Your task to perform on an android device: open app "YouTube Kids" Image 0: 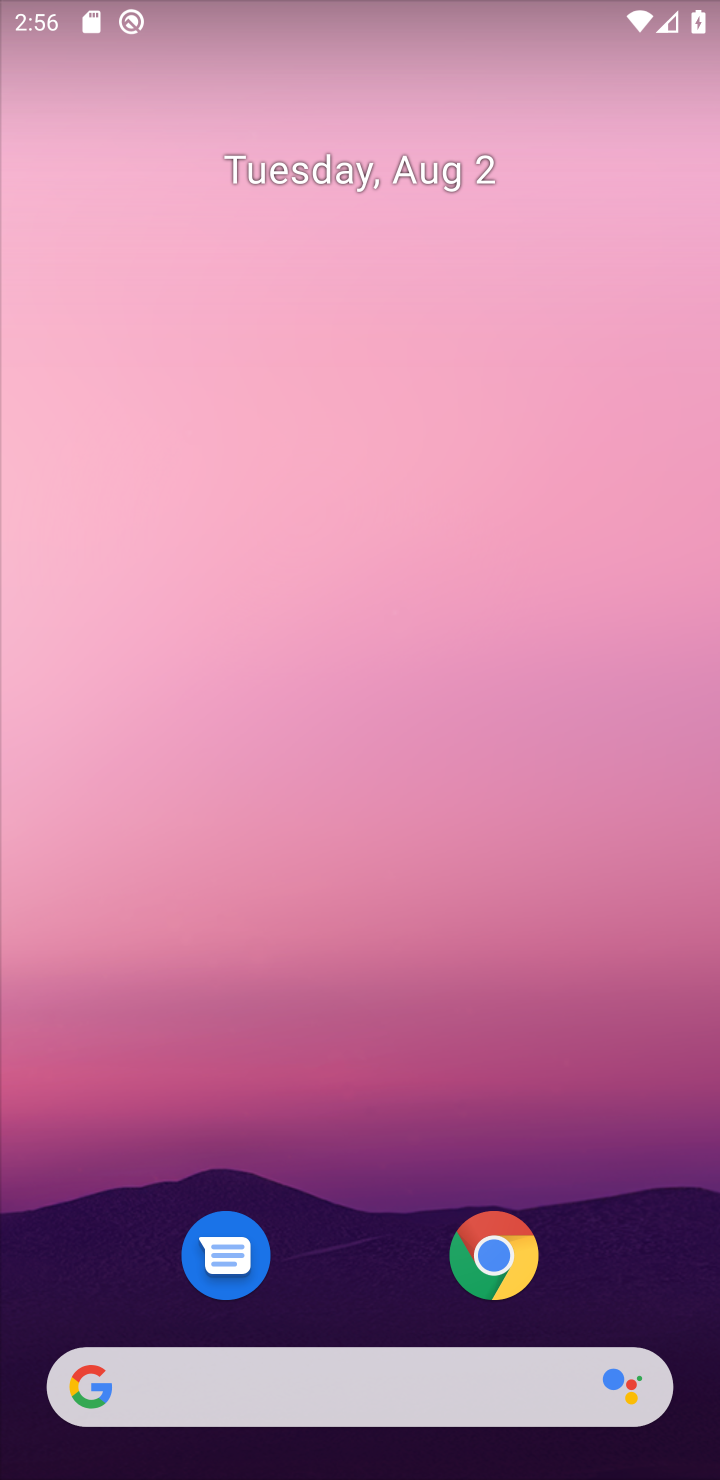
Step 0: drag from (345, 1171) to (345, 81)
Your task to perform on an android device: open app "YouTube Kids" Image 1: 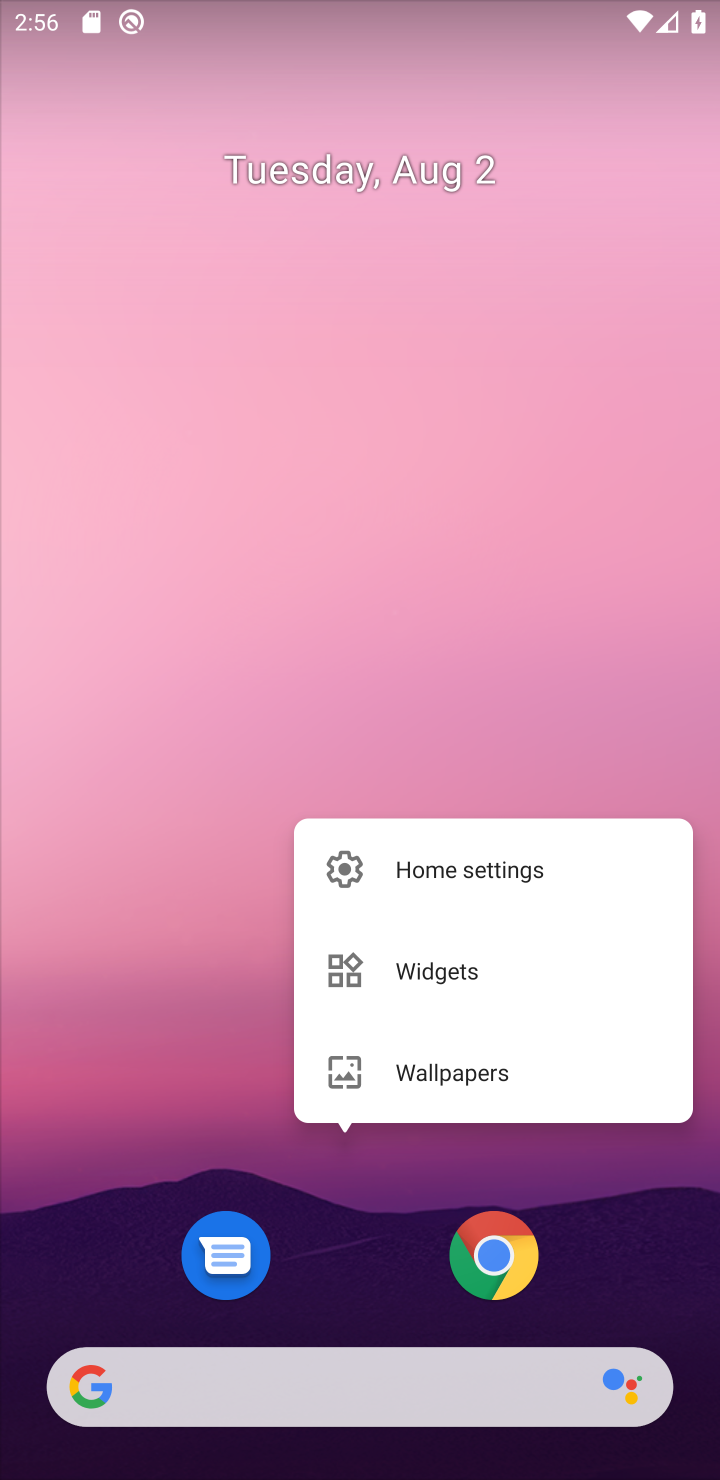
Step 1: click (267, 570)
Your task to perform on an android device: open app "YouTube Kids" Image 2: 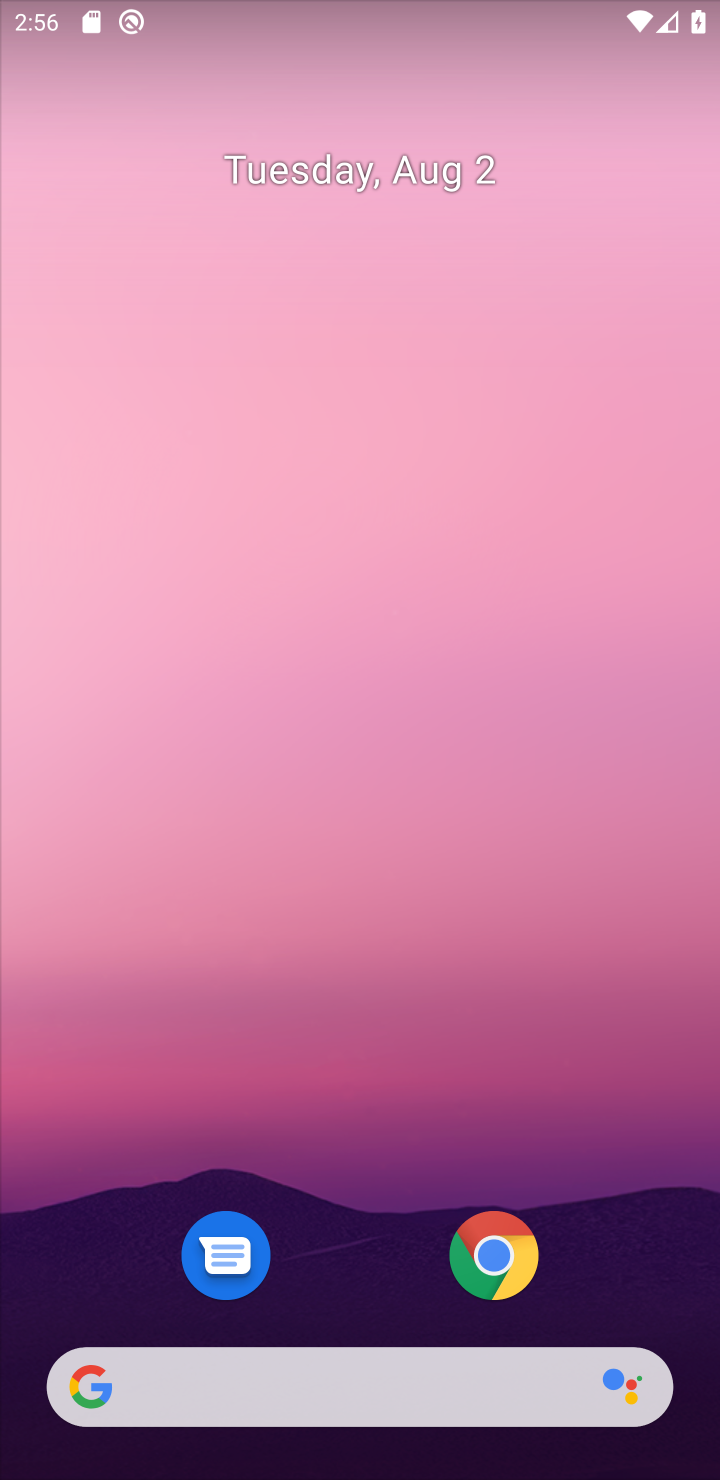
Step 2: drag from (355, 1209) to (359, 36)
Your task to perform on an android device: open app "YouTube Kids" Image 3: 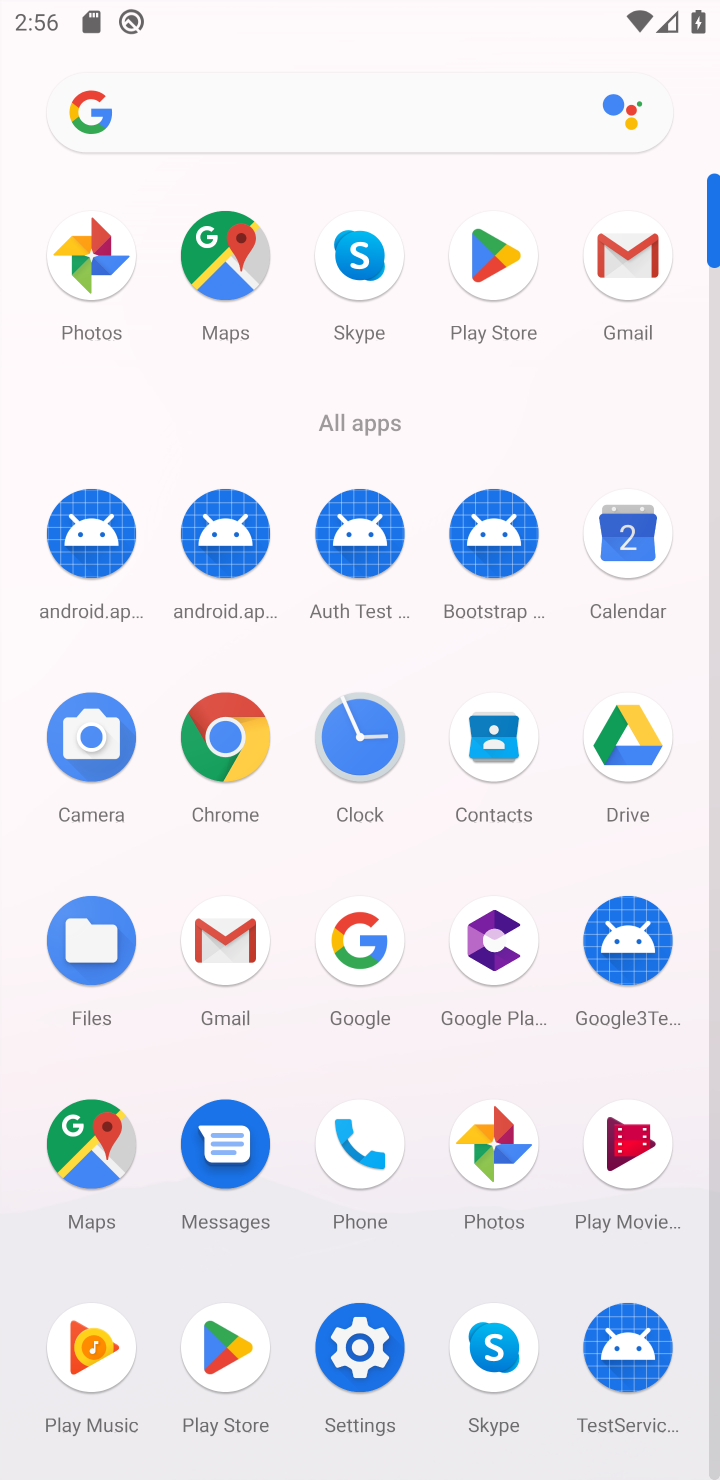
Step 3: click (500, 252)
Your task to perform on an android device: open app "YouTube Kids" Image 4: 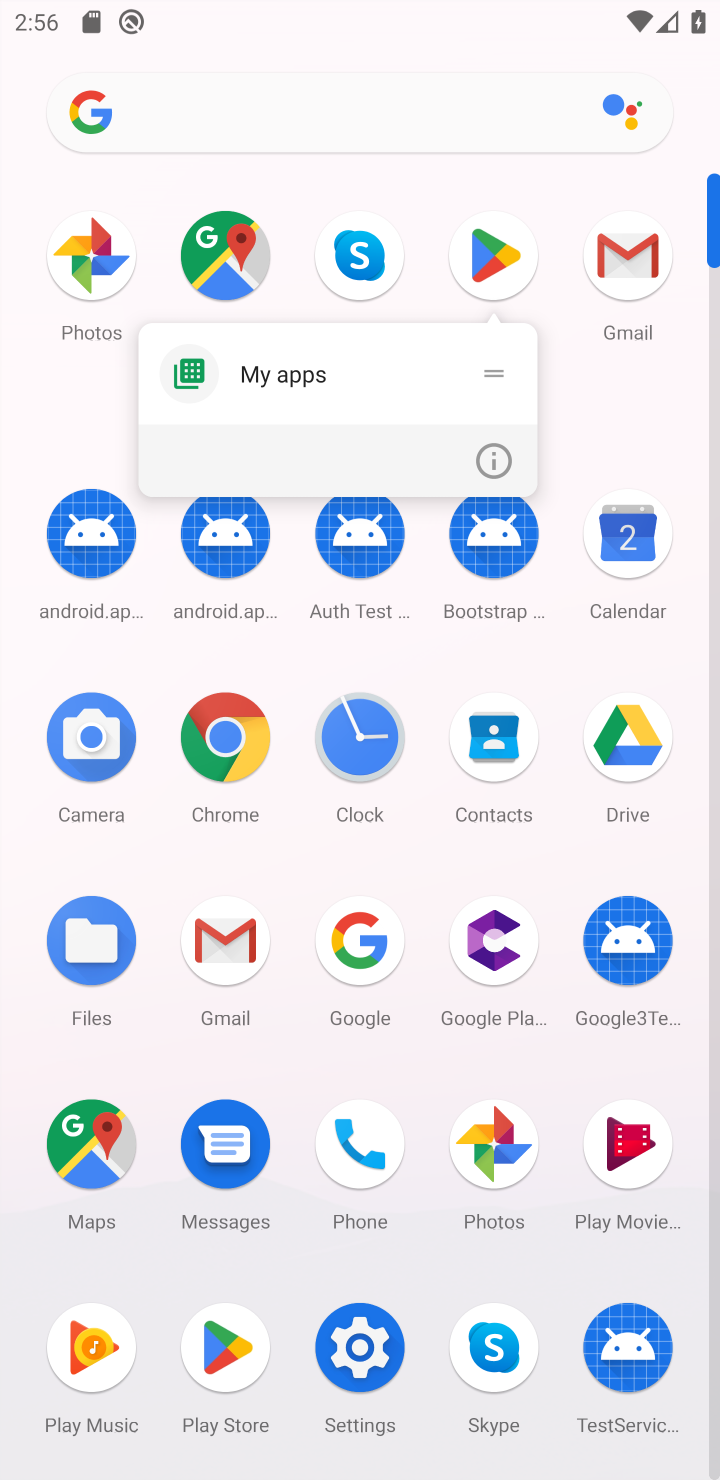
Step 4: click (474, 246)
Your task to perform on an android device: open app "YouTube Kids" Image 5: 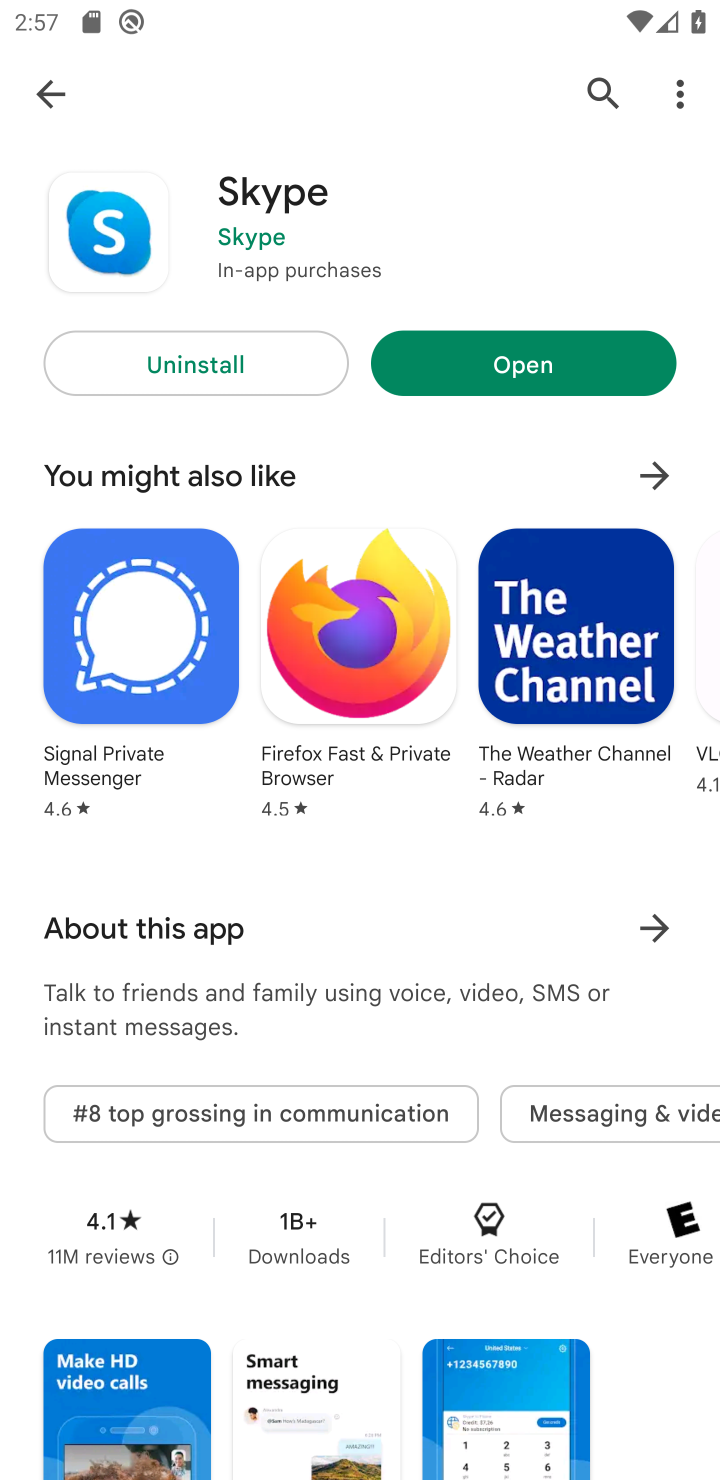
Step 5: click (602, 94)
Your task to perform on an android device: open app "YouTube Kids" Image 6: 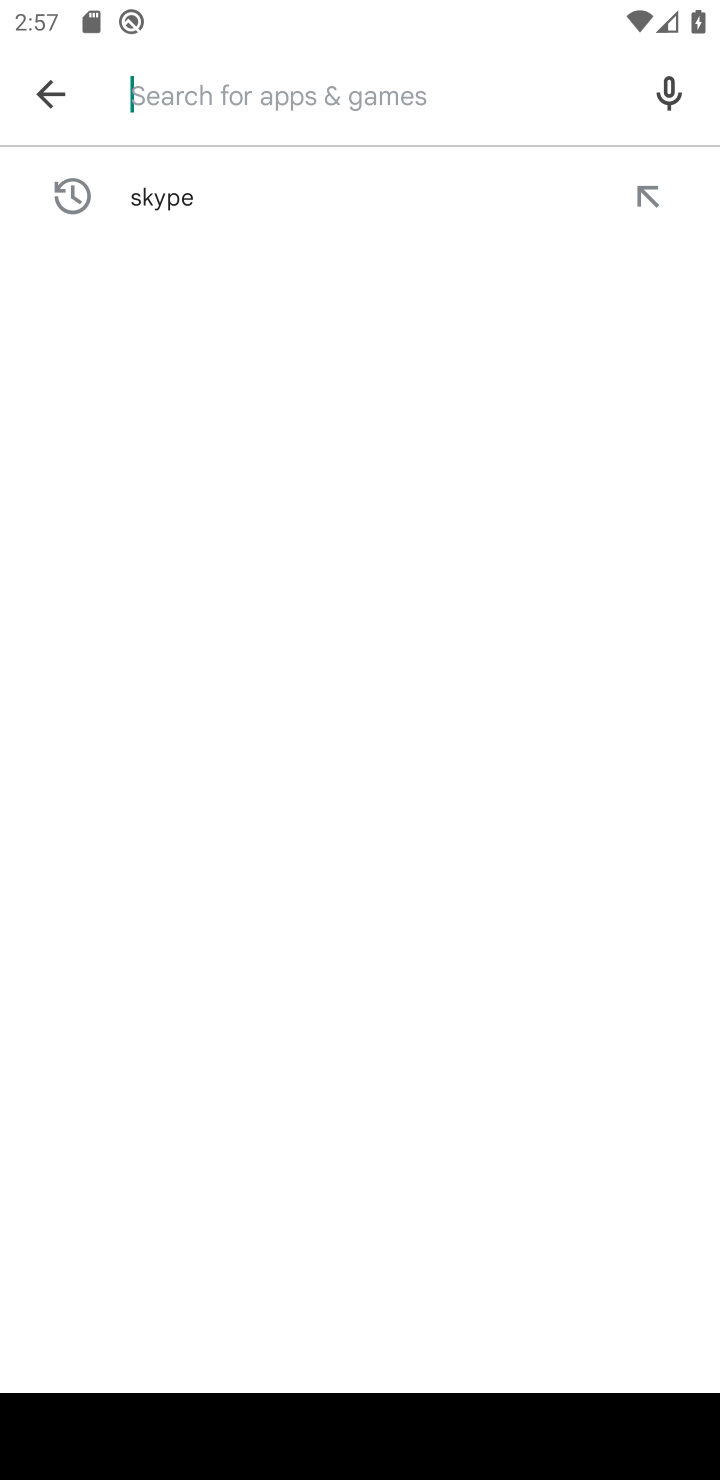
Step 6: type "youtube kids"
Your task to perform on an android device: open app "YouTube Kids" Image 7: 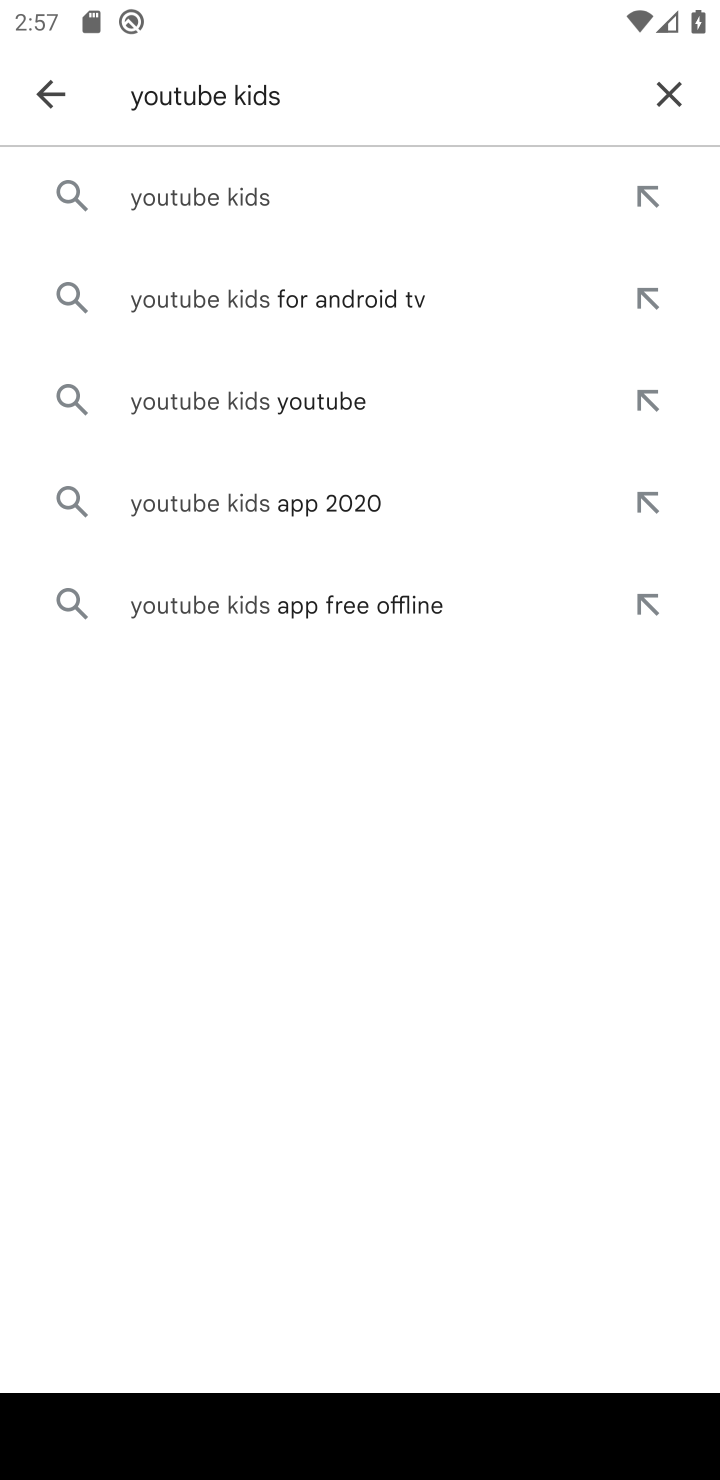
Step 7: click (274, 195)
Your task to perform on an android device: open app "YouTube Kids" Image 8: 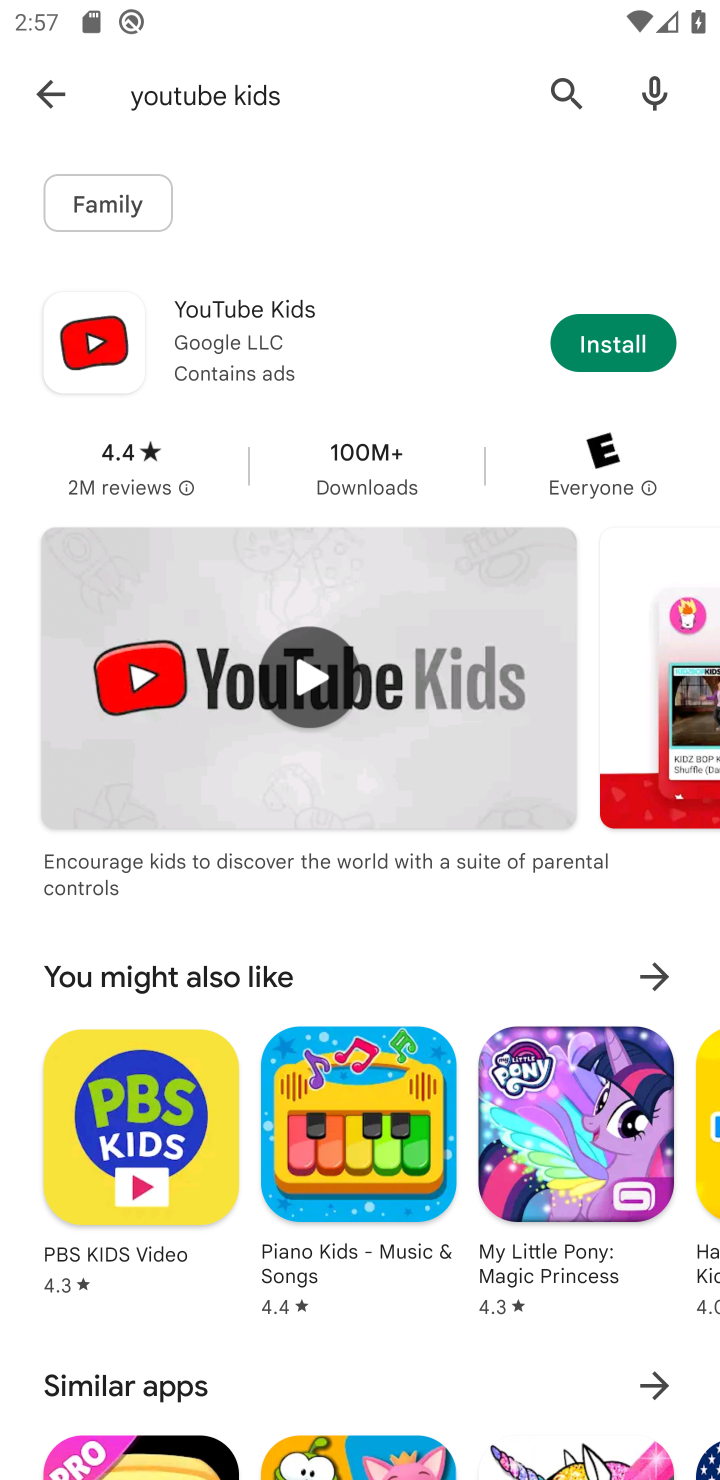
Step 8: click (179, 271)
Your task to perform on an android device: open app "YouTube Kids" Image 9: 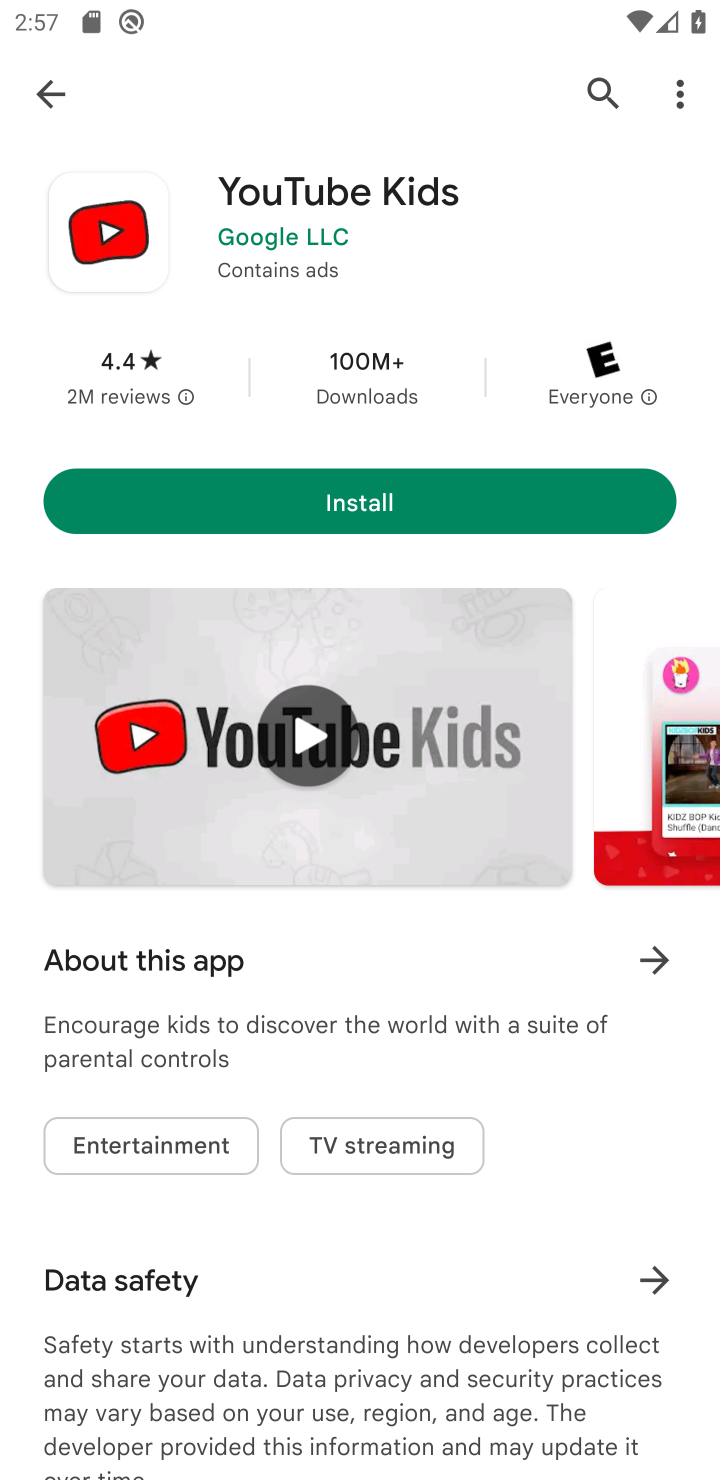
Step 9: task complete